Your task to perform on an android device: View the shopping cart on target. Add lenovo thinkpad to the cart on target Image 0: 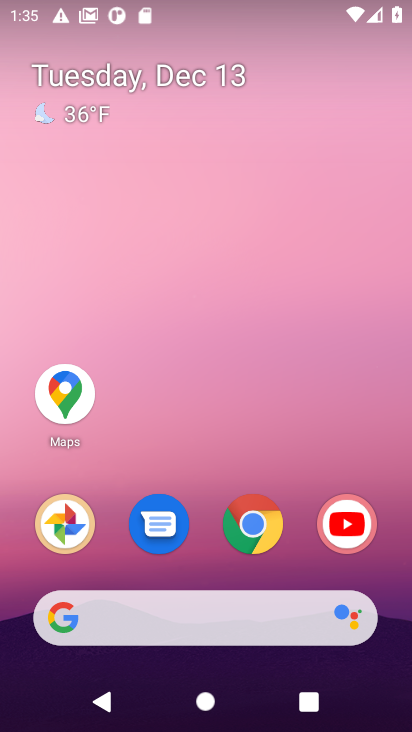
Step 0: click (258, 528)
Your task to perform on an android device: View the shopping cart on target. Add lenovo thinkpad to the cart on target Image 1: 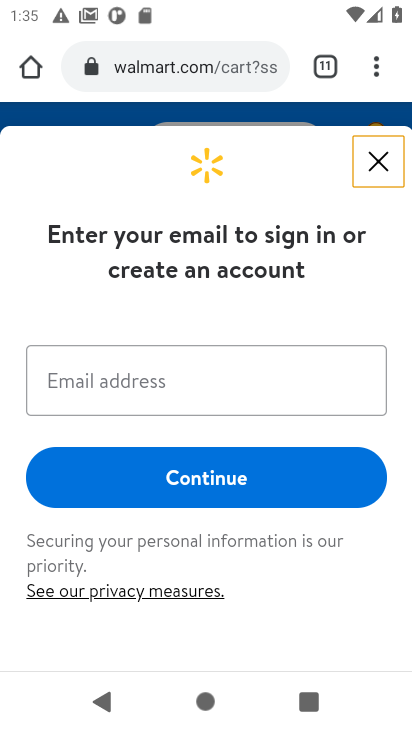
Step 1: click (172, 67)
Your task to perform on an android device: View the shopping cart on target. Add lenovo thinkpad to the cart on target Image 2: 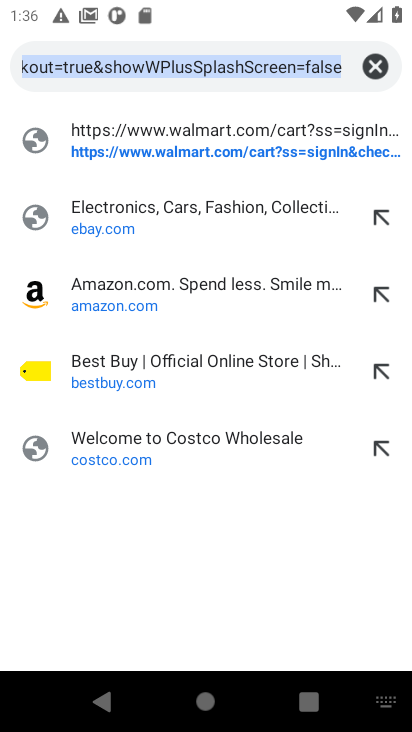
Step 2: type "target.com"
Your task to perform on an android device: View the shopping cart on target. Add lenovo thinkpad to the cart on target Image 3: 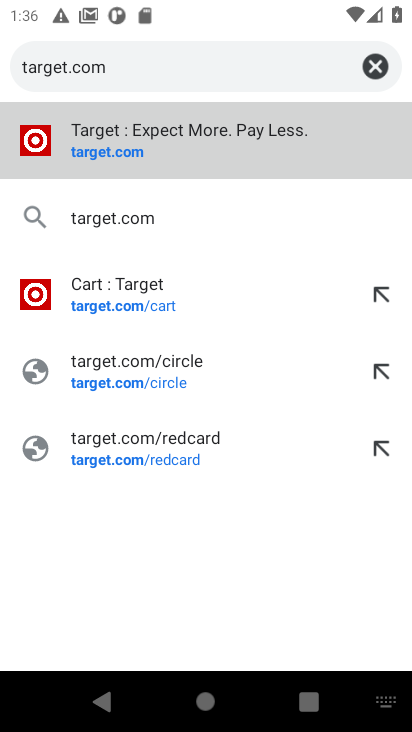
Step 3: click (85, 148)
Your task to perform on an android device: View the shopping cart on target. Add lenovo thinkpad to the cart on target Image 4: 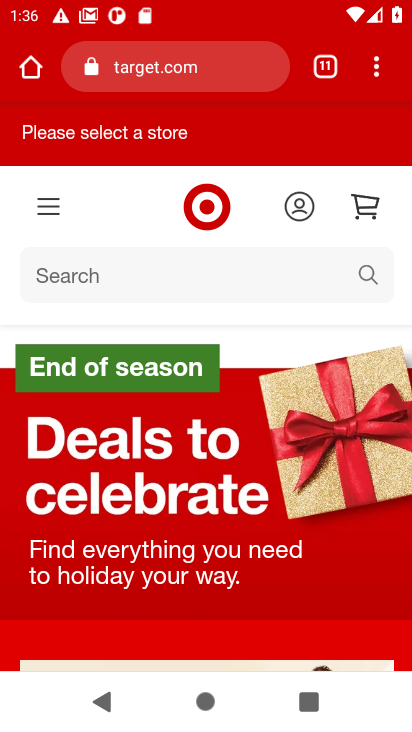
Step 4: click (368, 210)
Your task to perform on an android device: View the shopping cart on target. Add lenovo thinkpad to the cart on target Image 5: 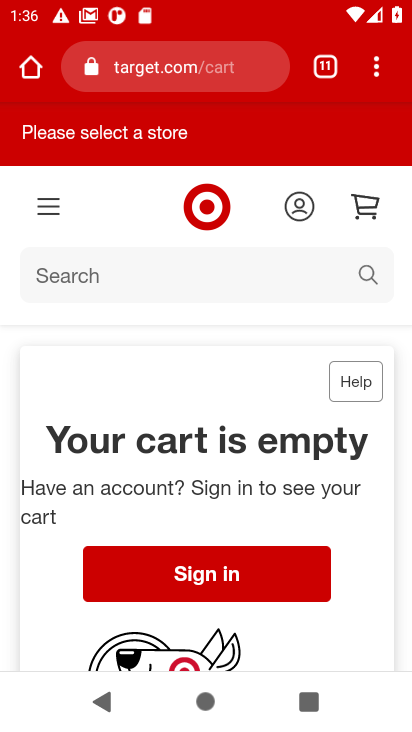
Step 5: drag from (327, 598) to (327, 441)
Your task to perform on an android device: View the shopping cart on target. Add lenovo thinkpad to the cart on target Image 6: 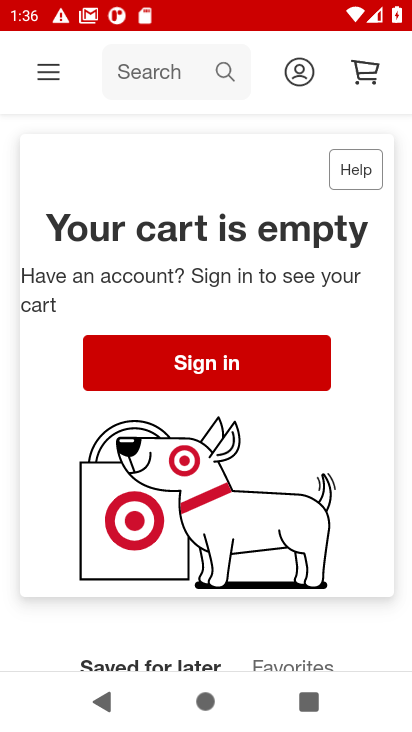
Step 6: drag from (346, 307) to (338, 535)
Your task to perform on an android device: View the shopping cart on target. Add lenovo thinkpad to the cart on target Image 7: 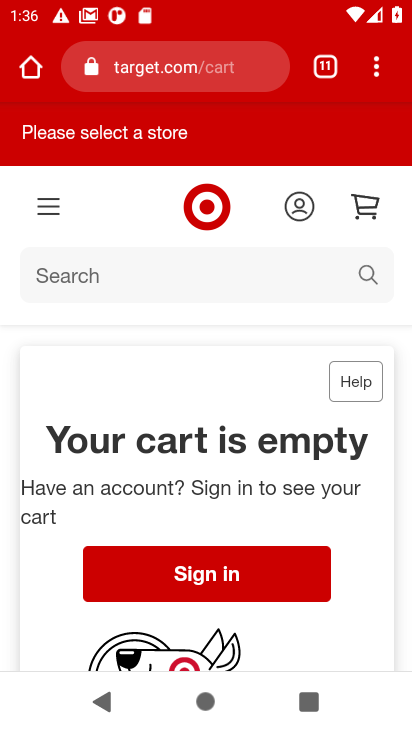
Step 7: click (74, 280)
Your task to perform on an android device: View the shopping cart on target. Add lenovo thinkpad to the cart on target Image 8: 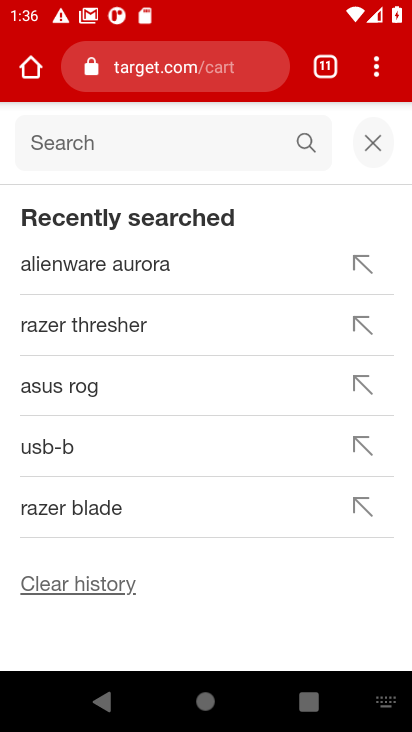
Step 8: type "lenovo thinkpad "
Your task to perform on an android device: View the shopping cart on target. Add lenovo thinkpad to the cart on target Image 9: 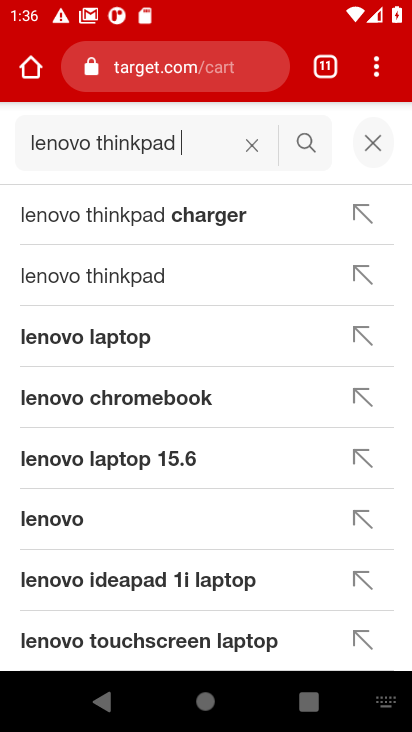
Step 9: click (112, 273)
Your task to perform on an android device: View the shopping cart on target. Add lenovo thinkpad to the cart on target Image 10: 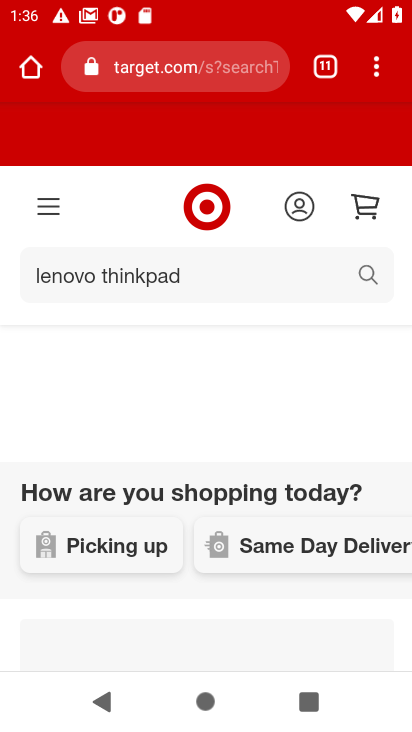
Step 10: drag from (189, 506) to (210, 280)
Your task to perform on an android device: View the shopping cart on target. Add lenovo thinkpad to the cart on target Image 11: 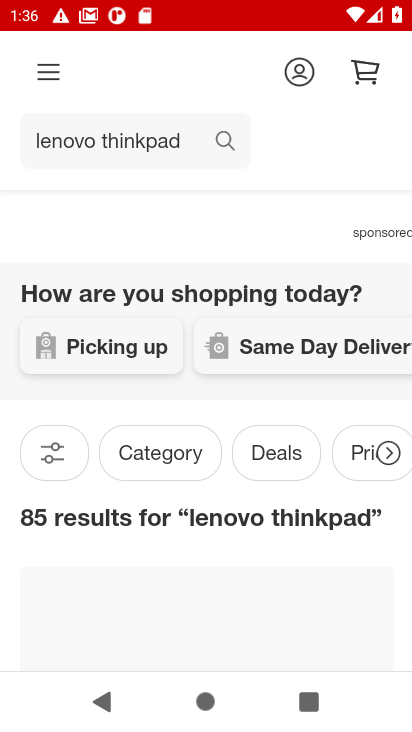
Step 11: drag from (192, 541) to (210, 226)
Your task to perform on an android device: View the shopping cart on target. Add lenovo thinkpad to the cart on target Image 12: 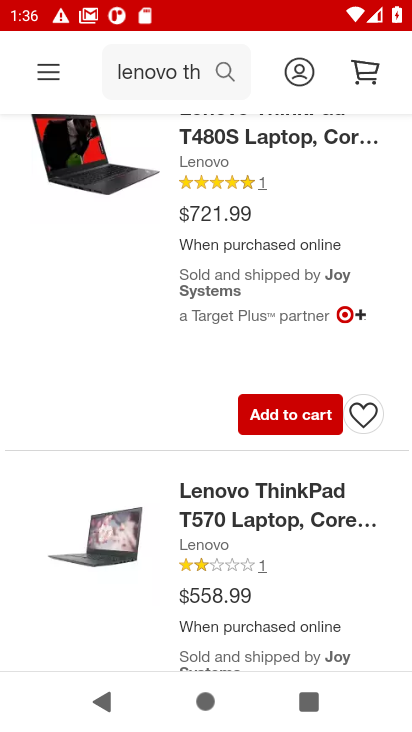
Step 12: drag from (212, 208) to (206, 339)
Your task to perform on an android device: View the shopping cart on target. Add lenovo thinkpad to the cart on target Image 13: 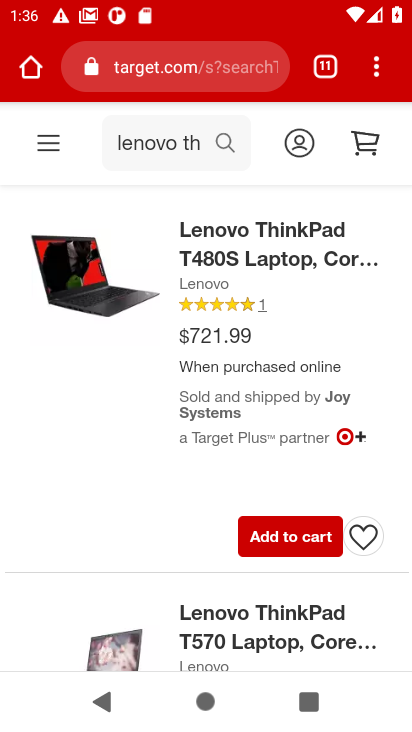
Step 13: click (302, 539)
Your task to perform on an android device: View the shopping cart on target. Add lenovo thinkpad to the cart on target Image 14: 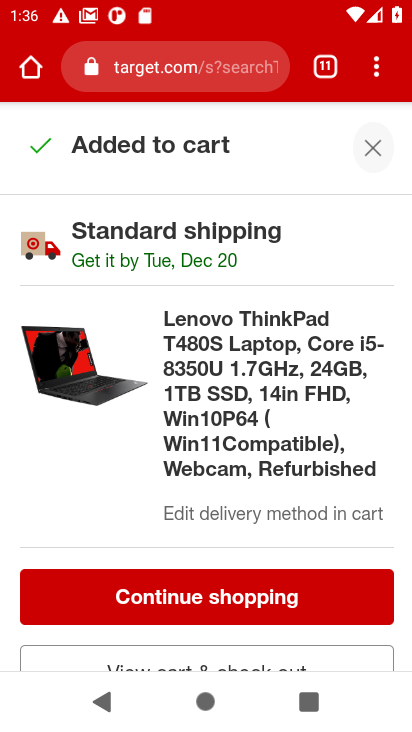
Step 14: task complete